Your task to perform on an android device: Open the stopwatch Image 0: 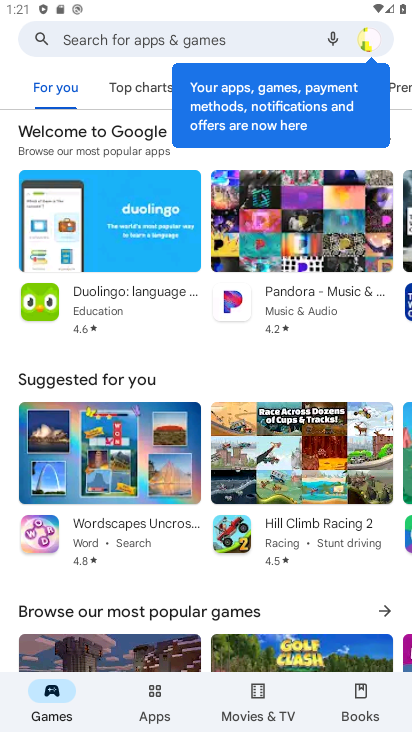
Step 0: press home button
Your task to perform on an android device: Open the stopwatch Image 1: 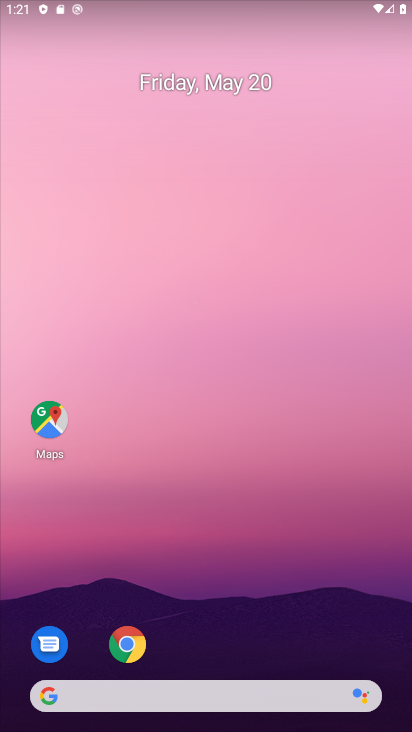
Step 1: drag from (245, 611) to (252, 230)
Your task to perform on an android device: Open the stopwatch Image 2: 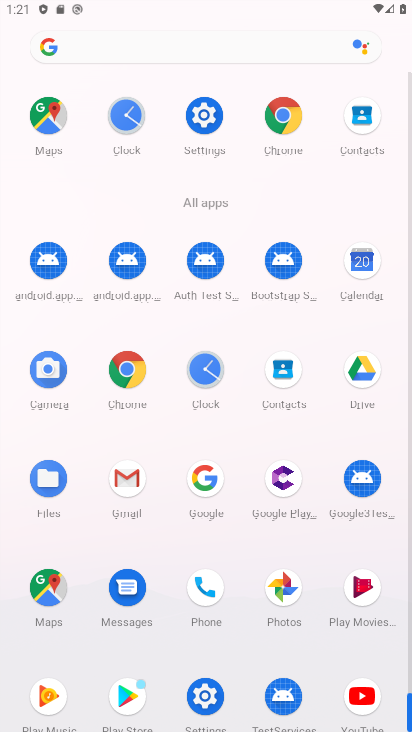
Step 2: click (199, 361)
Your task to perform on an android device: Open the stopwatch Image 3: 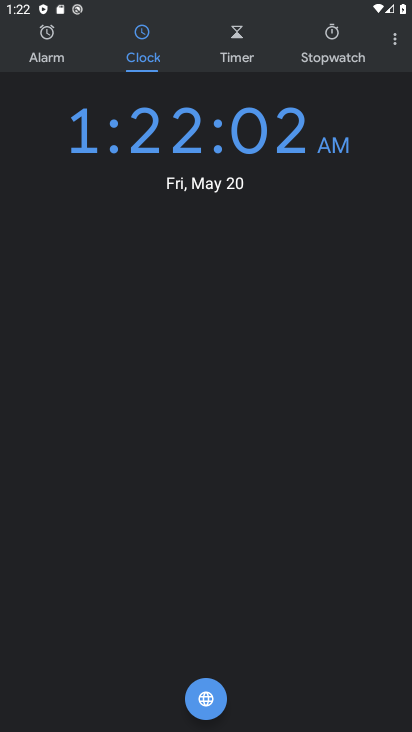
Step 3: click (316, 44)
Your task to perform on an android device: Open the stopwatch Image 4: 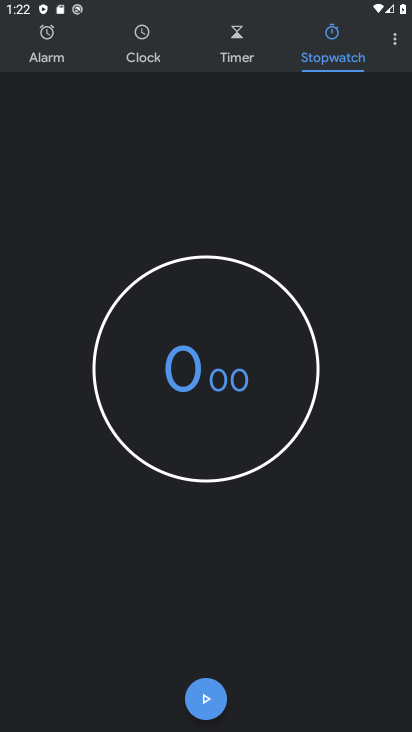
Step 4: click (211, 708)
Your task to perform on an android device: Open the stopwatch Image 5: 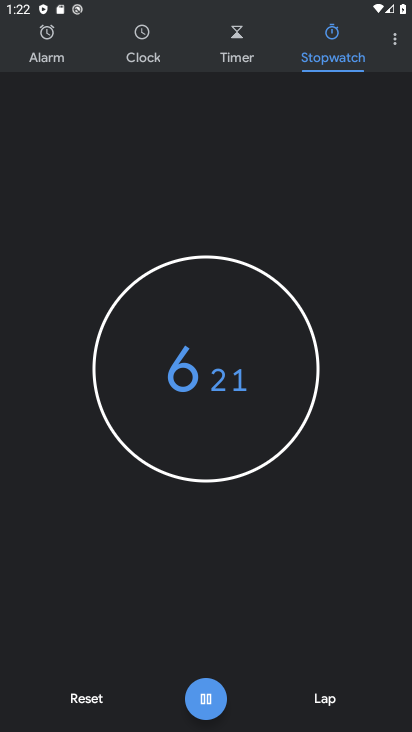
Step 5: click (211, 708)
Your task to perform on an android device: Open the stopwatch Image 6: 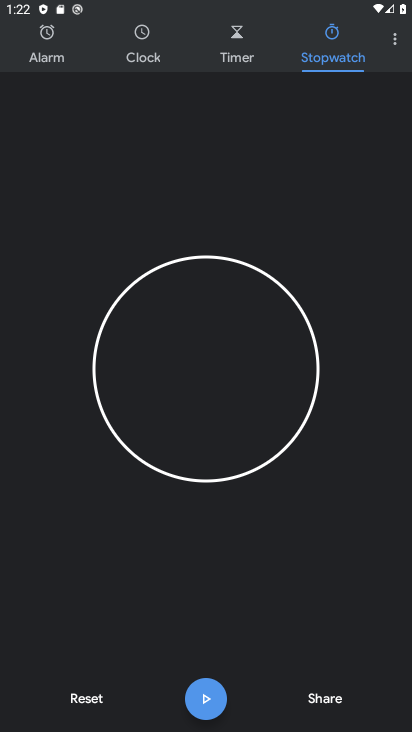
Step 6: task complete